Your task to perform on an android device: open app "VLC for Android" (install if not already installed) and go to login screen Image 0: 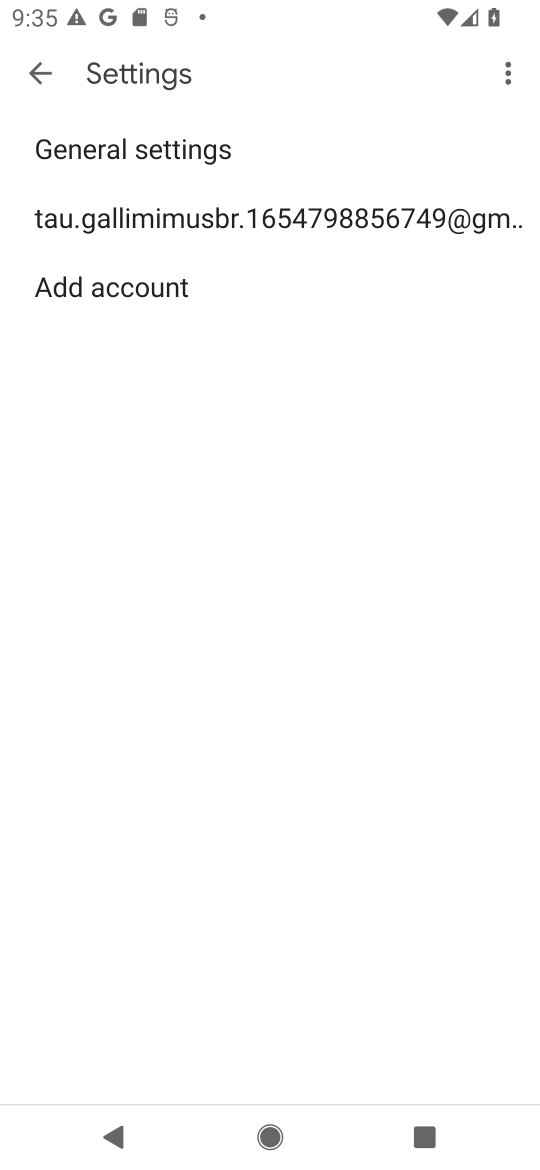
Step 0: press home button
Your task to perform on an android device: open app "VLC for Android" (install if not already installed) and go to login screen Image 1: 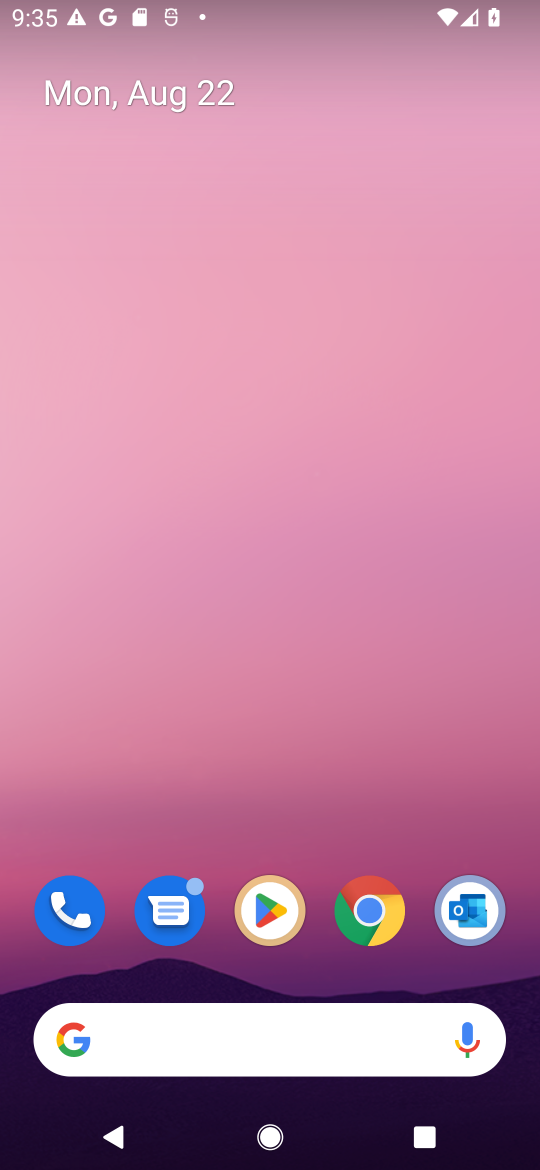
Step 1: click (263, 886)
Your task to perform on an android device: open app "VLC for Android" (install if not already installed) and go to login screen Image 2: 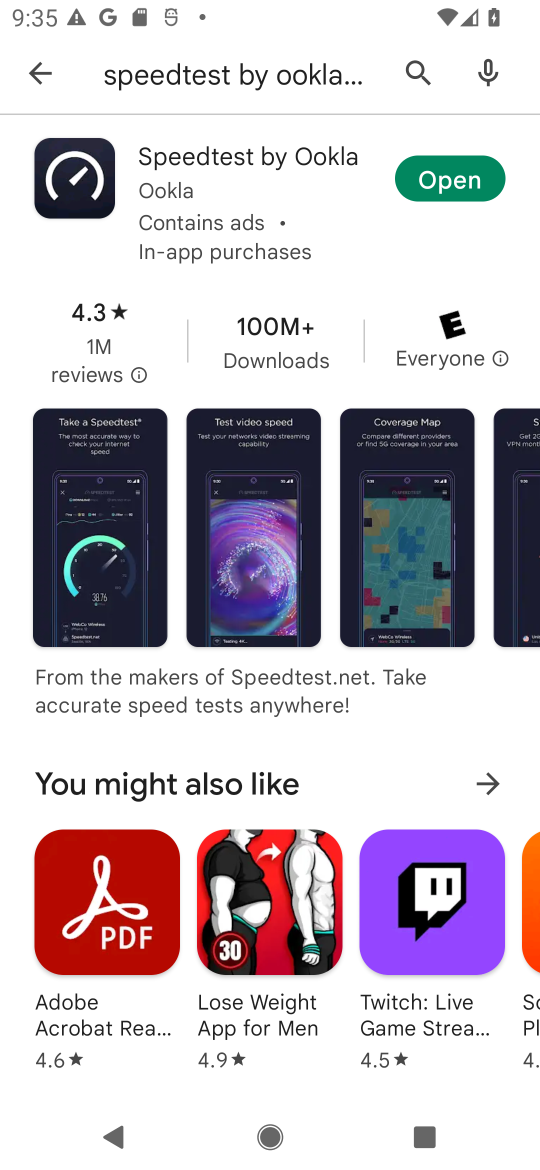
Step 2: click (404, 67)
Your task to perform on an android device: open app "VLC for Android" (install if not already installed) and go to login screen Image 3: 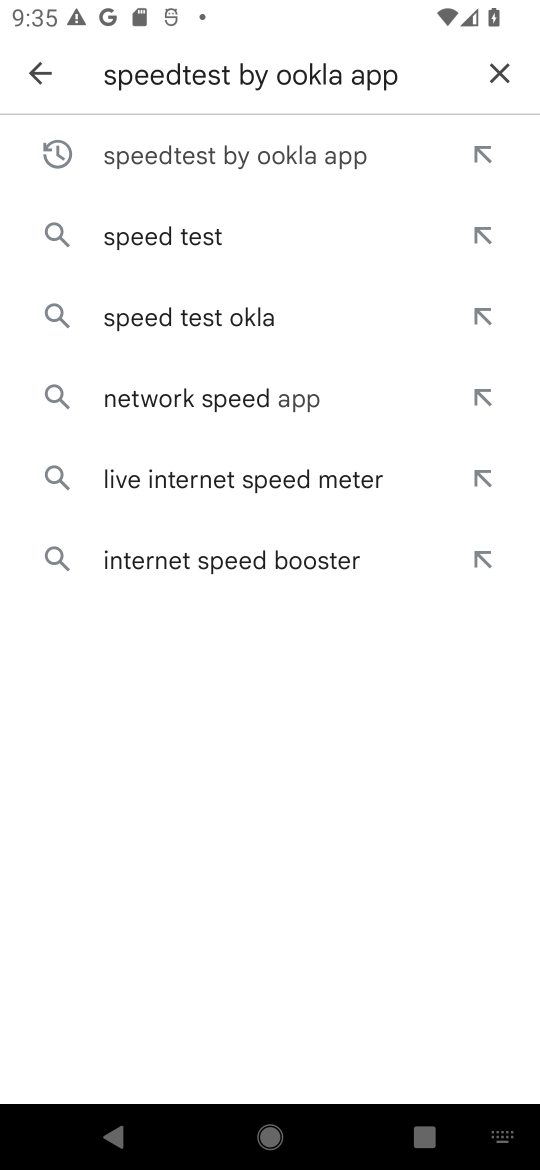
Step 3: click (492, 59)
Your task to perform on an android device: open app "VLC for Android" (install if not already installed) and go to login screen Image 4: 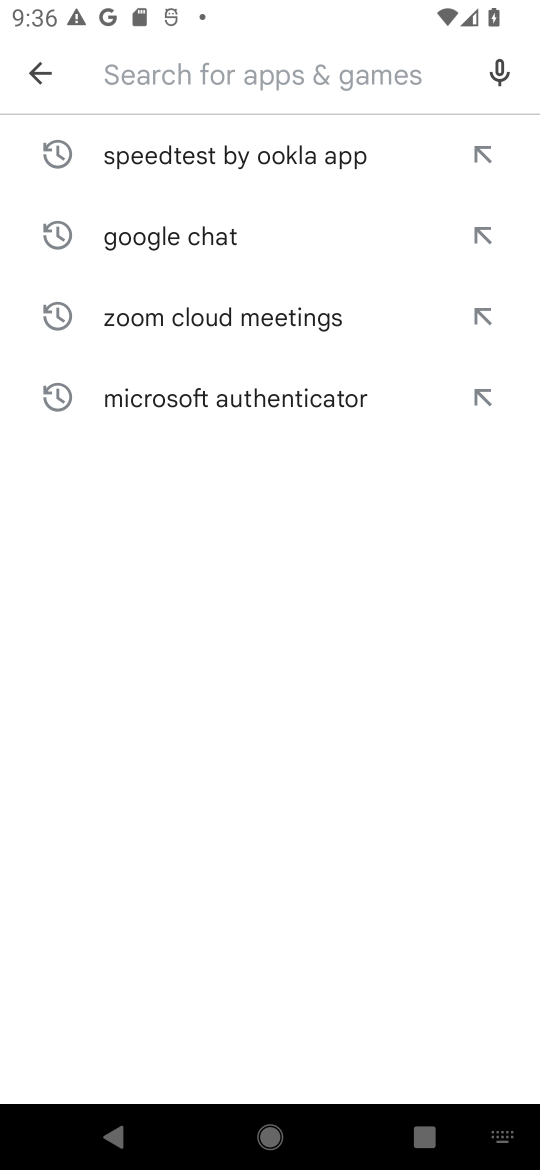
Step 4: type "VLC for Android"
Your task to perform on an android device: open app "VLC for Android" (install if not already installed) and go to login screen Image 5: 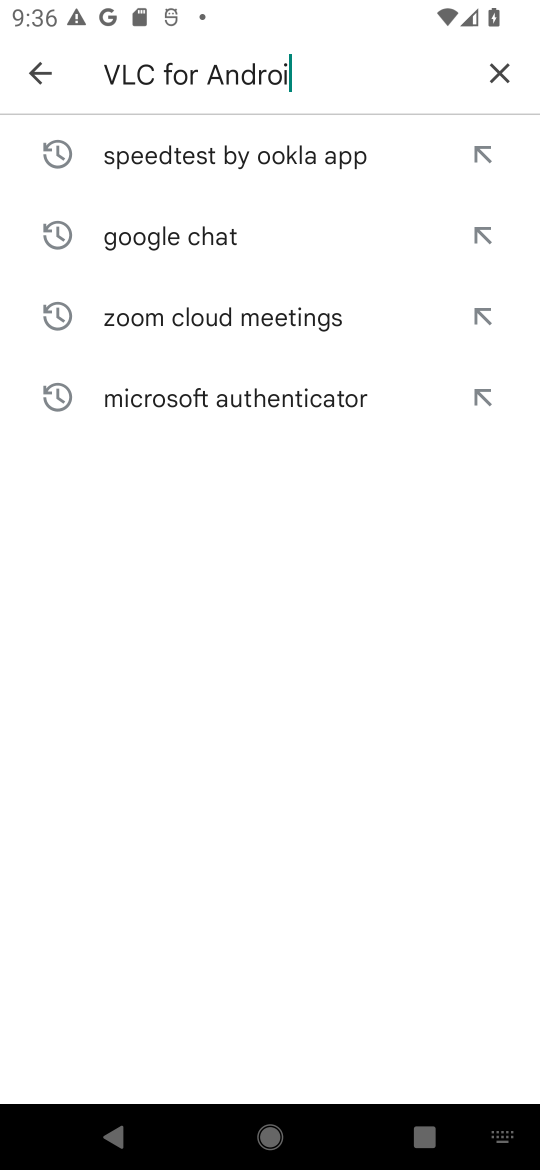
Step 5: type ""
Your task to perform on an android device: open app "VLC for Android" (install if not already installed) and go to login screen Image 6: 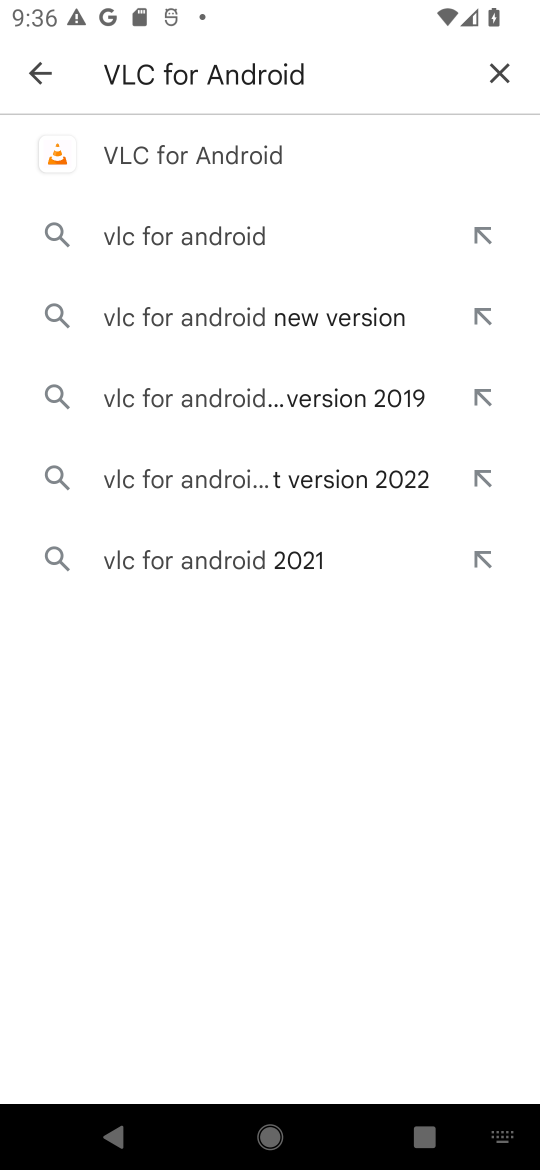
Step 6: click (216, 168)
Your task to perform on an android device: open app "VLC for Android" (install if not already installed) and go to login screen Image 7: 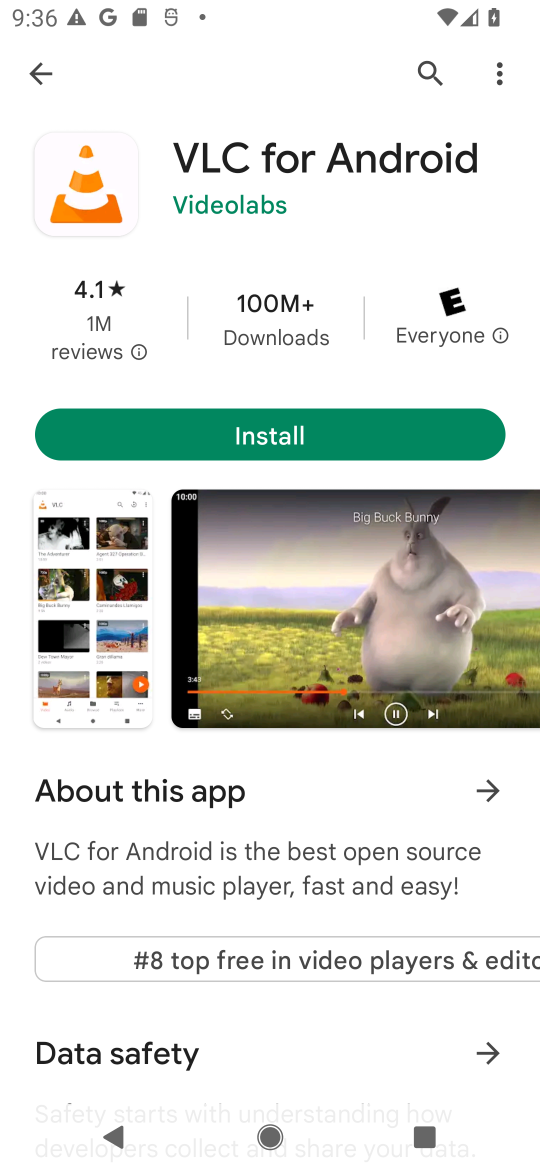
Step 7: click (331, 449)
Your task to perform on an android device: open app "VLC for Android" (install if not already installed) and go to login screen Image 8: 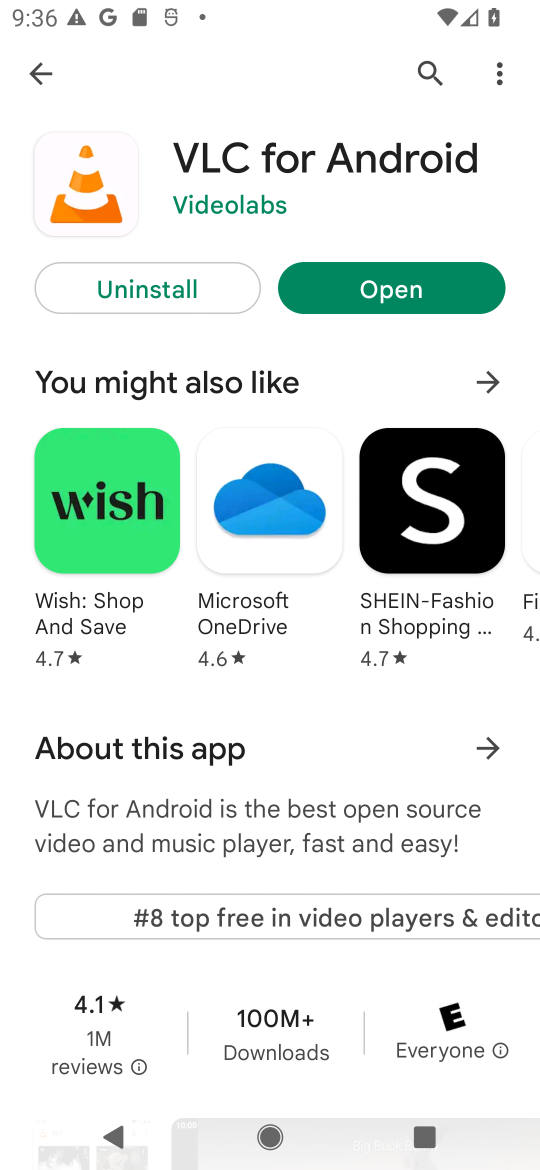
Step 8: click (416, 291)
Your task to perform on an android device: open app "VLC for Android" (install if not already installed) and go to login screen Image 9: 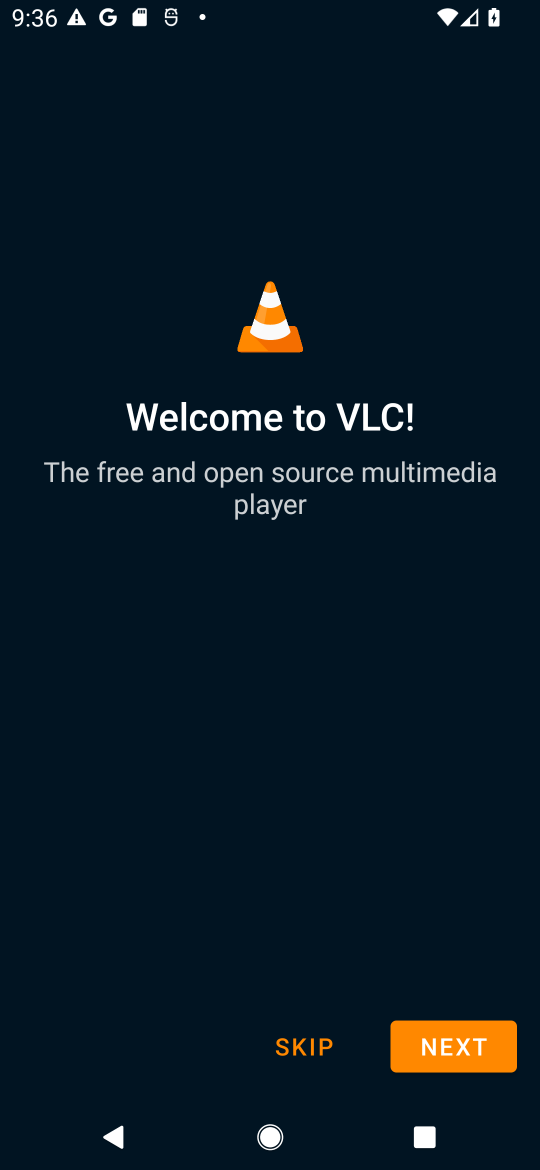
Step 9: task complete